Your task to perform on an android device: Add "logitech g910" to the cart on walmart, then select checkout. Image 0: 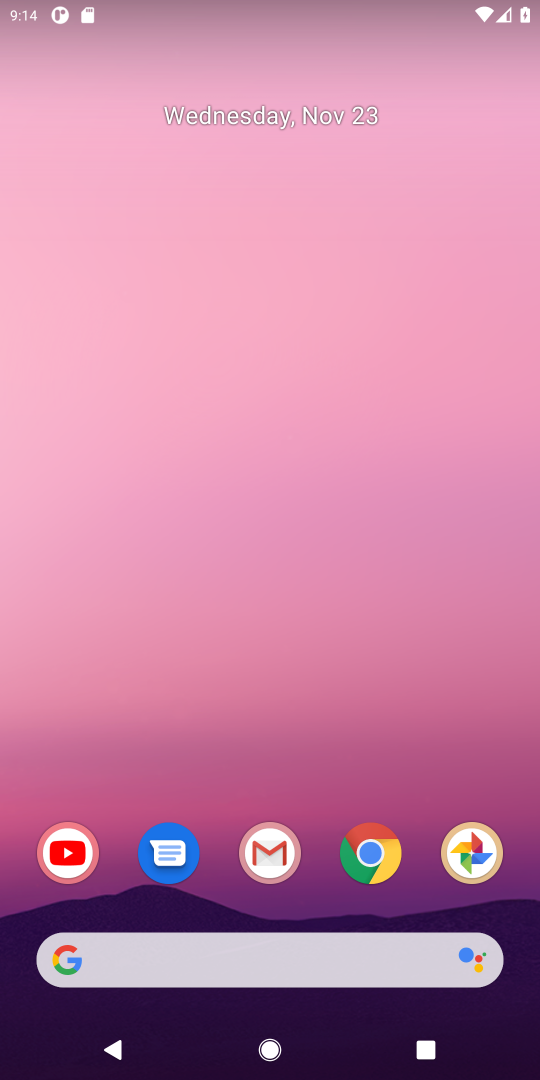
Step 0: click (364, 860)
Your task to perform on an android device: Add "logitech g910" to the cart on walmart, then select checkout. Image 1: 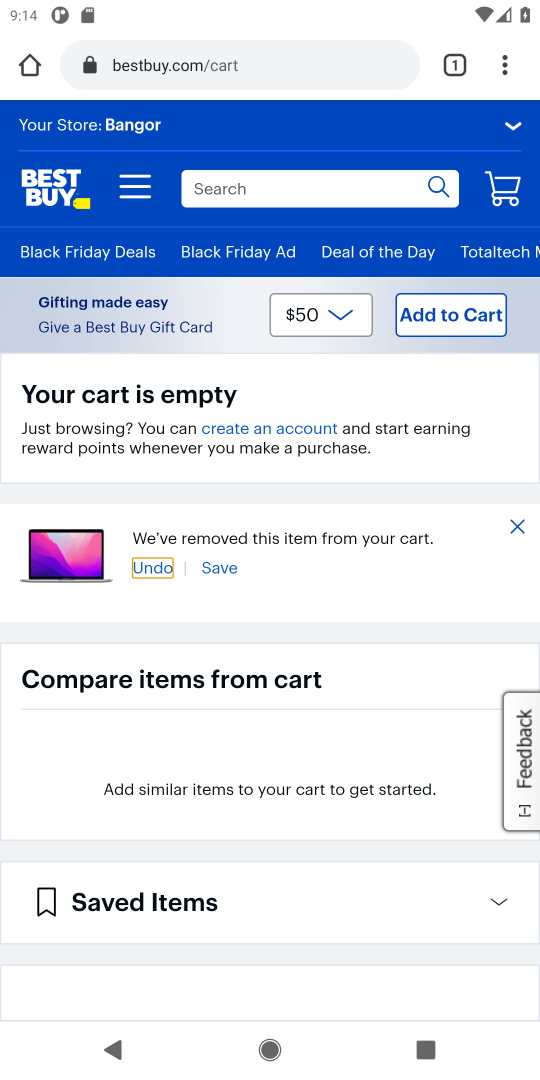
Step 1: click (167, 72)
Your task to perform on an android device: Add "logitech g910" to the cart on walmart, then select checkout. Image 2: 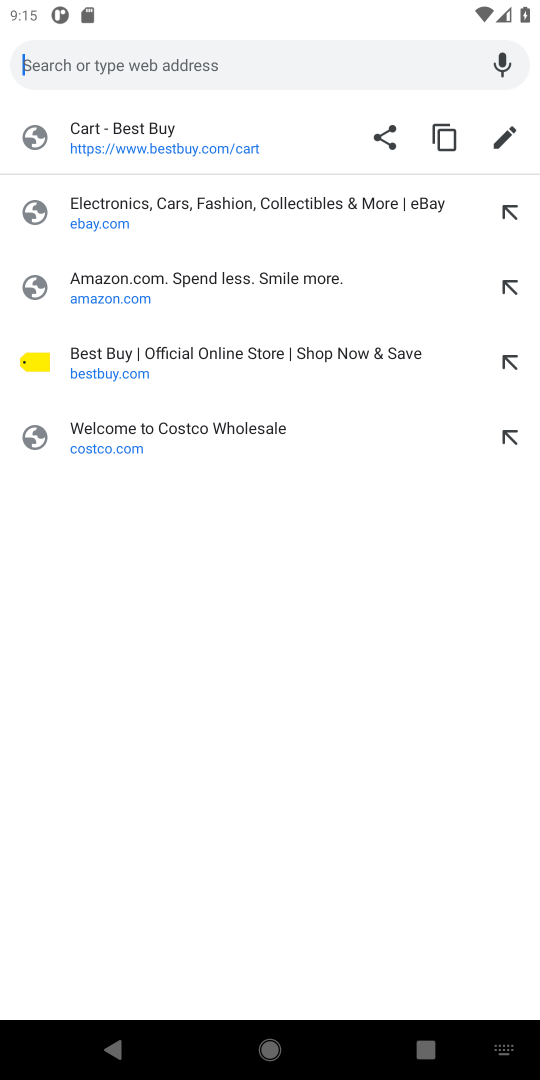
Step 2: type "walmart.com"
Your task to perform on an android device: Add "logitech g910" to the cart on walmart, then select checkout. Image 3: 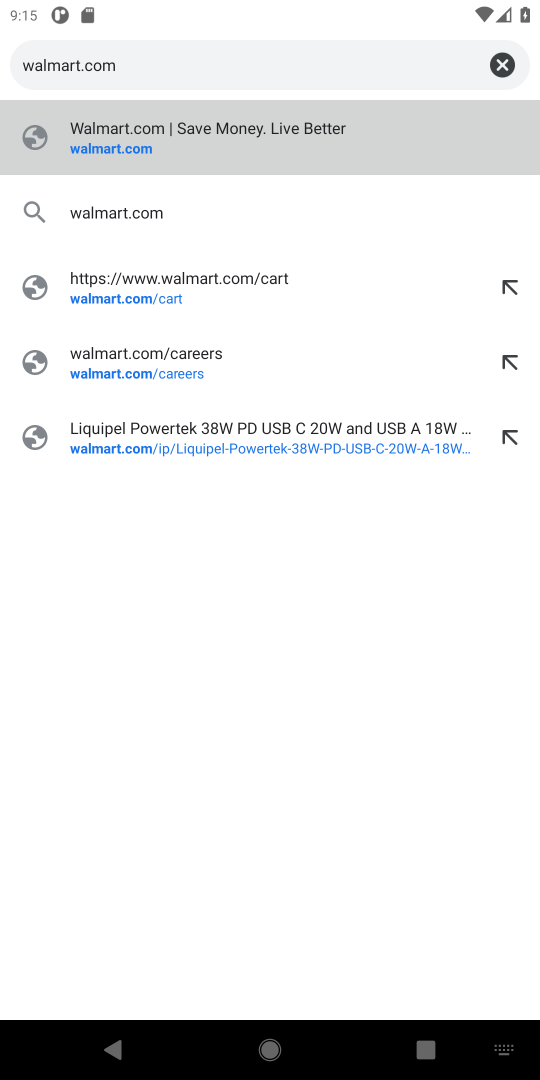
Step 3: click (103, 156)
Your task to perform on an android device: Add "logitech g910" to the cart on walmart, then select checkout. Image 4: 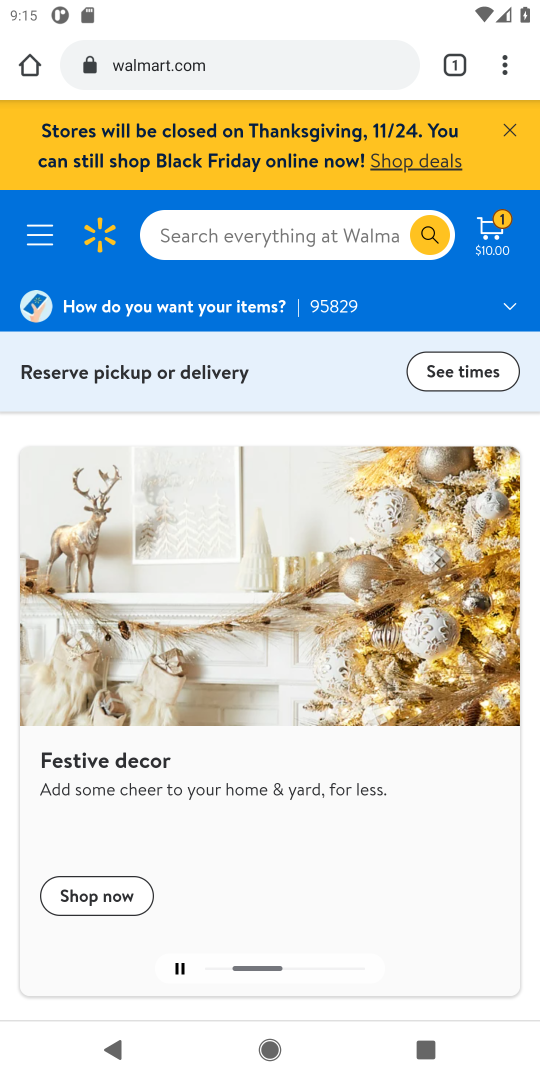
Step 4: click (228, 247)
Your task to perform on an android device: Add "logitech g910" to the cart on walmart, then select checkout. Image 5: 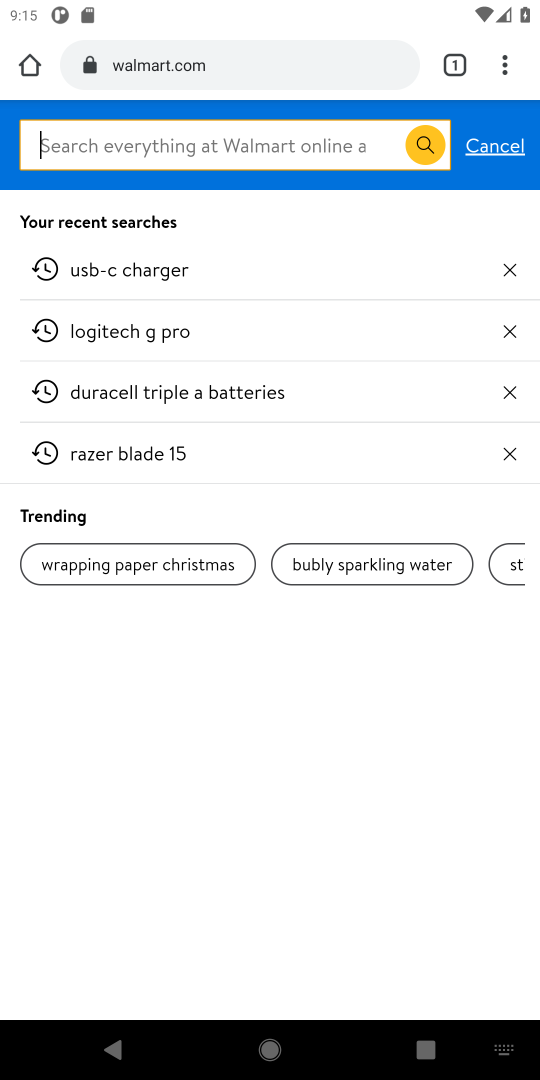
Step 5: type "logitech g910"
Your task to perform on an android device: Add "logitech g910" to the cart on walmart, then select checkout. Image 6: 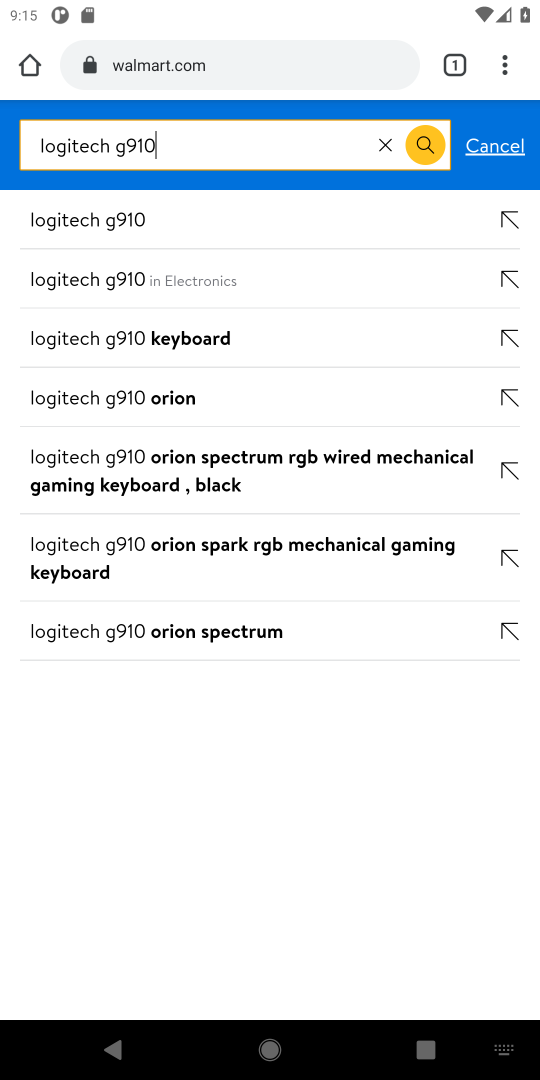
Step 6: click (111, 223)
Your task to perform on an android device: Add "logitech g910" to the cart on walmart, then select checkout. Image 7: 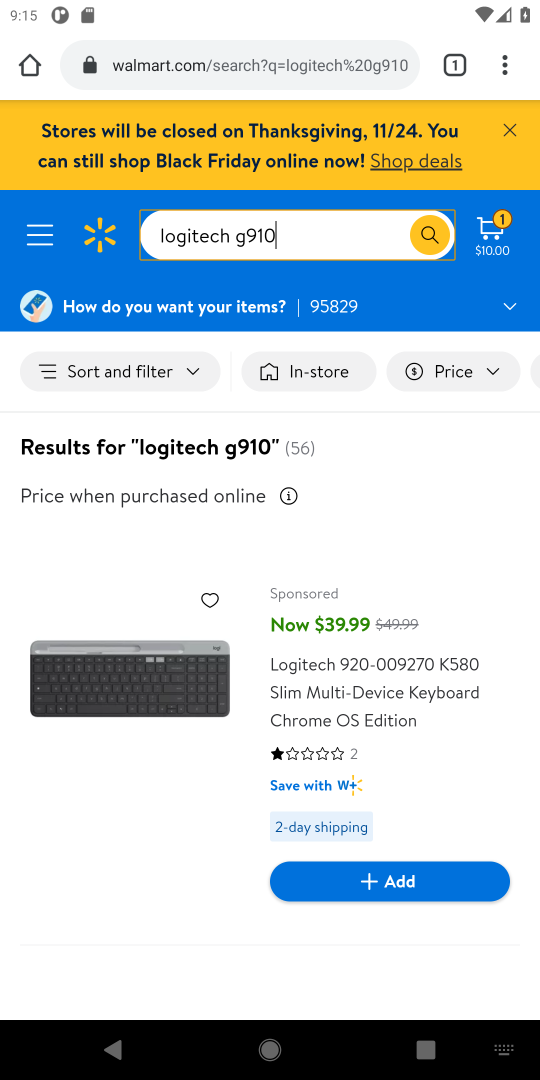
Step 7: drag from (152, 782) to (190, 420)
Your task to perform on an android device: Add "logitech g910" to the cart on walmart, then select checkout. Image 8: 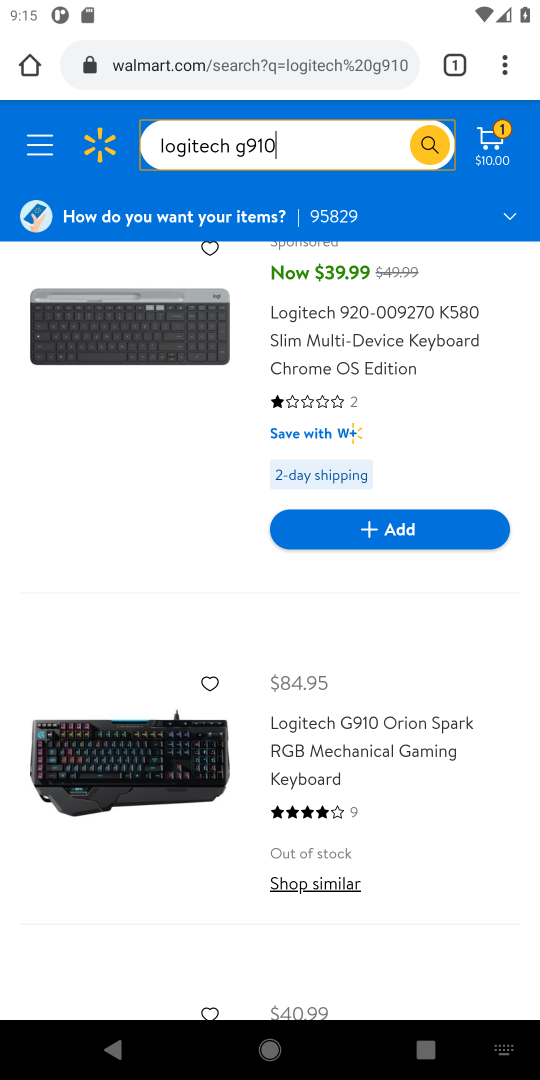
Step 8: drag from (143, 729) to (177, 390)
Your task to perform on an android device: Add "logitech g910" to the cart on walmart, then select checkout. Image 9: 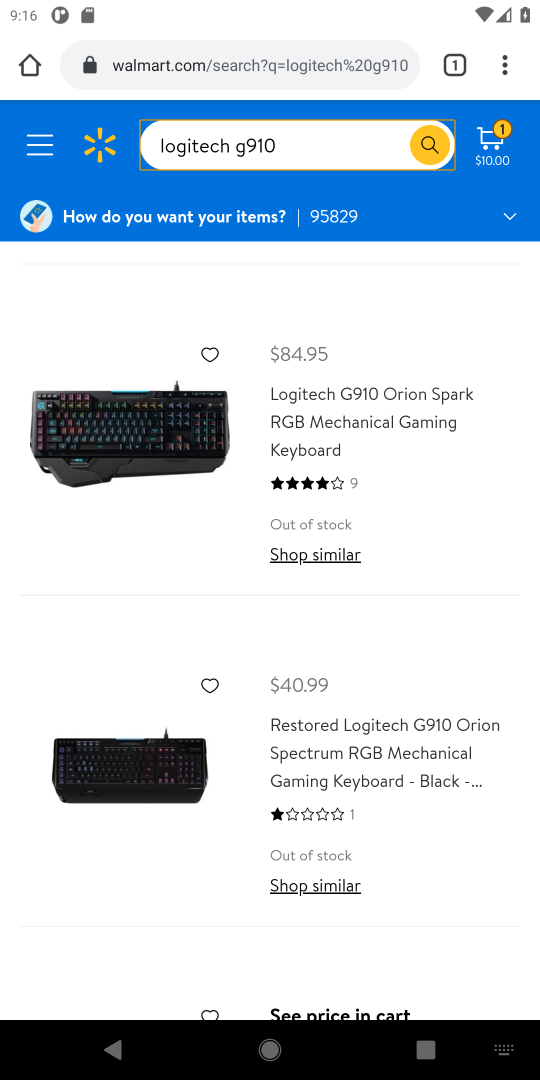
Step 9: drag from (152, 441) to (147, 352)
Your task to perform on an android device: Add "logitech g910" to the cart on walmart, then select checkout. Image 10: 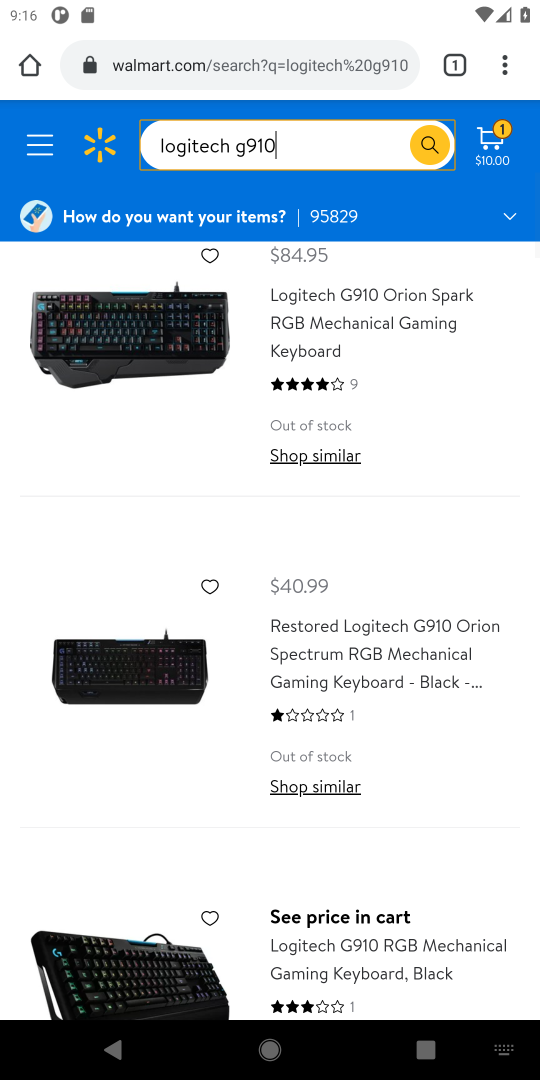
Step 10: drag from (221, 783) to (205, 488)
Your task to perform on an android device: Add "logitech g910" to the cart on walmart, then select checkout. Image 11: 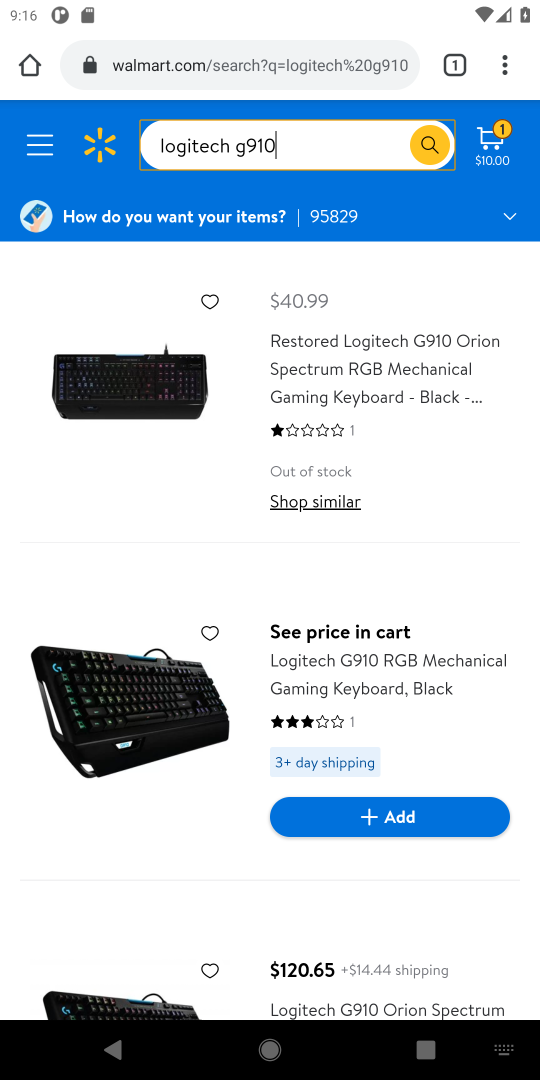
Step 11: click (152, 703)
Your task to perform on an android device: Add "logitech g910" to the cart on walmart, then select checkout. Image 12: 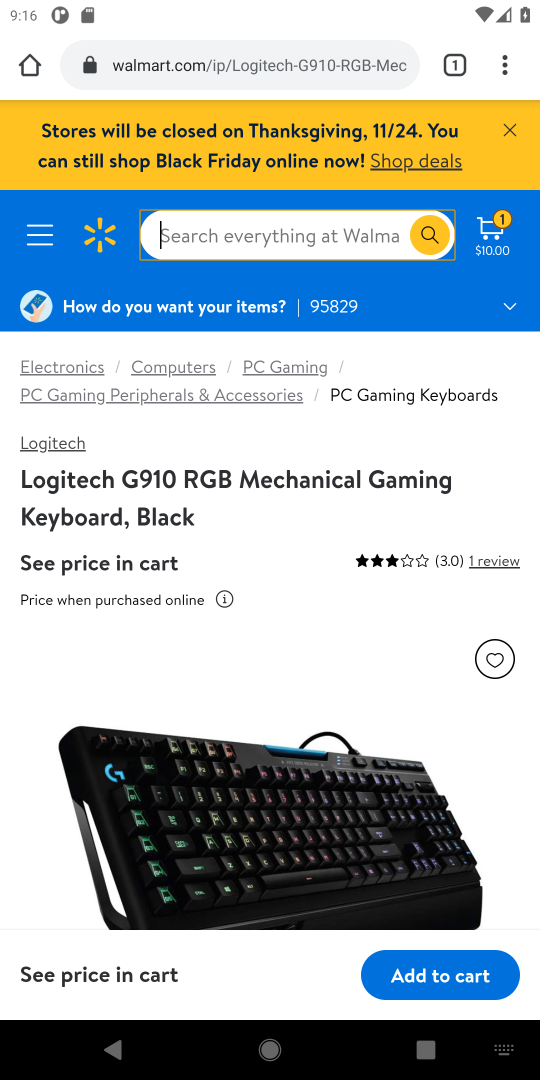
Step 12: click (433, 968)
Your task to perform on an android device: Add "logitech g910" to the cart on walmart, then select checkout. Image 13: 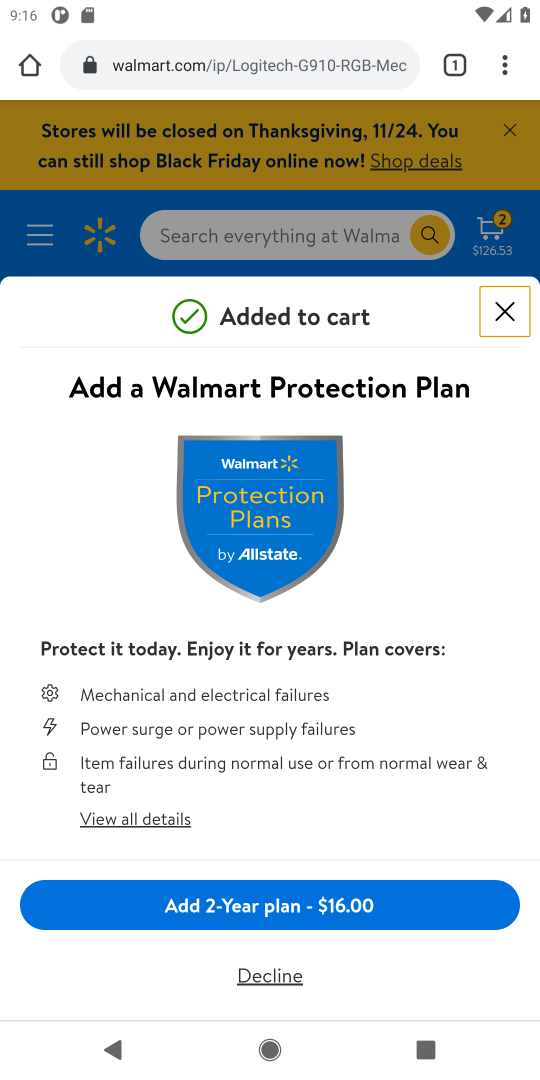
Step 13: task complete